Your task to perform on an android device: turn off location Image 0: 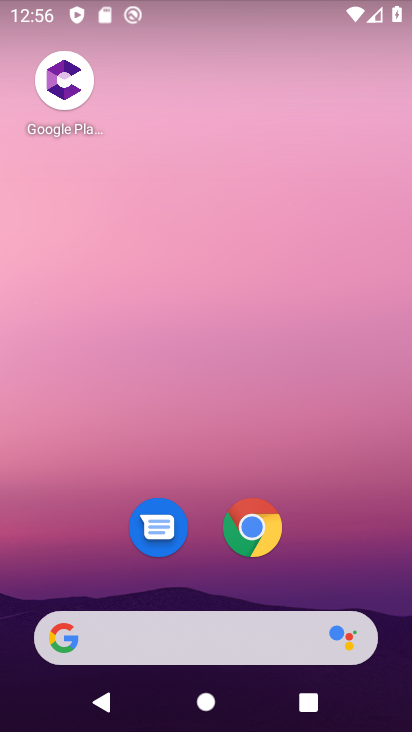
Step 0: drag from (380, 590) to (369, 245)
Your task to perform on an android device: turn off location Image 1: 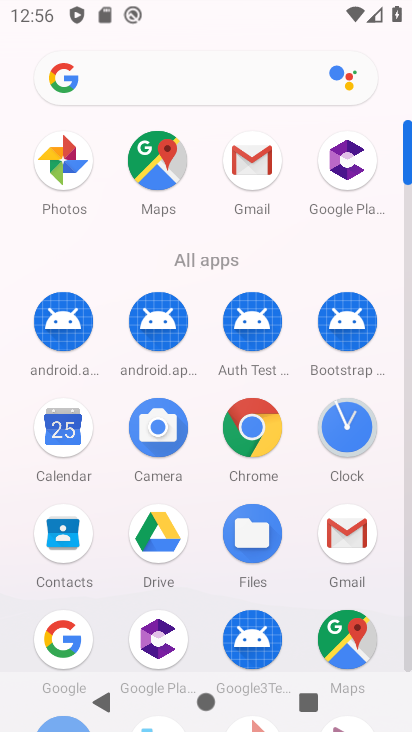
Step 1: drag from (295, 599) to (297, 278)
Your task to perform on an android device: turn off location Image 2: 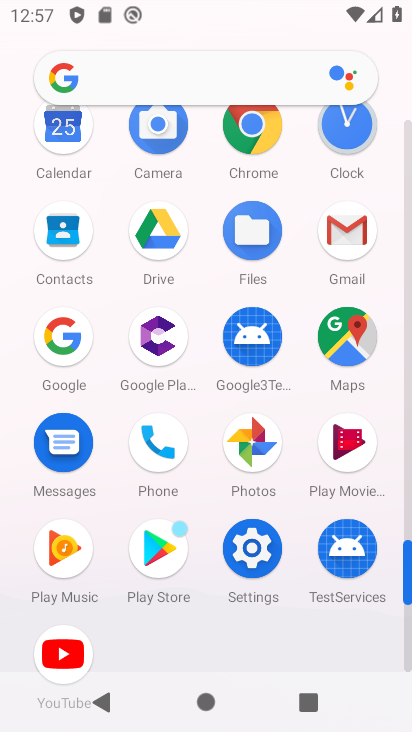
Step 2: click (262, 557)
Your task to perform on an android device: turn off location Image 3: 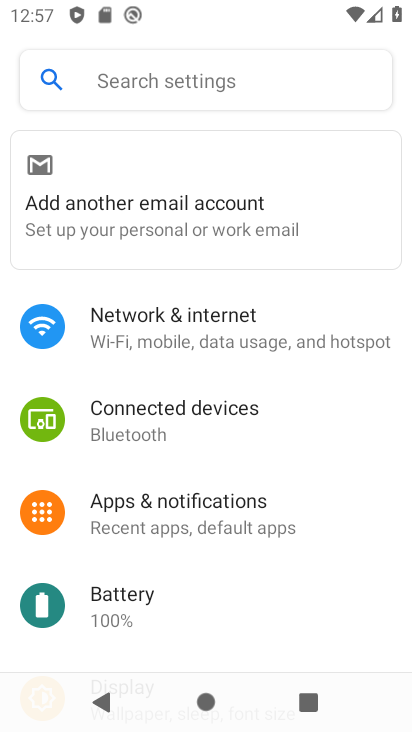
Step 3: drag from (334, 565) to (346, 459)
Your task to perform on an android device: turn off location Image 4: 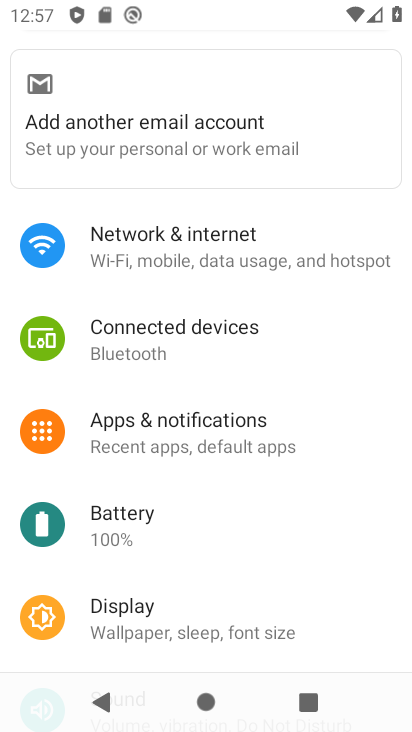
Step 4: drag from (362, 609) to (354, 500)
Your task to perform on an android device: turn off location Image 5: 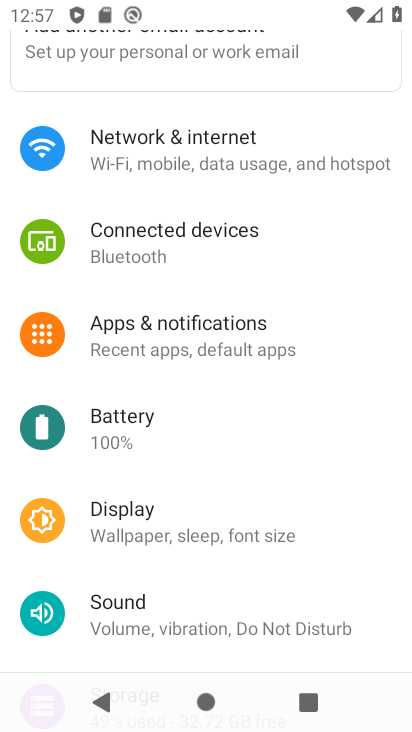
Step 5: drag from (370, 602) to (383, 496)
Your task to perform on an android device: turn off location Image 6: 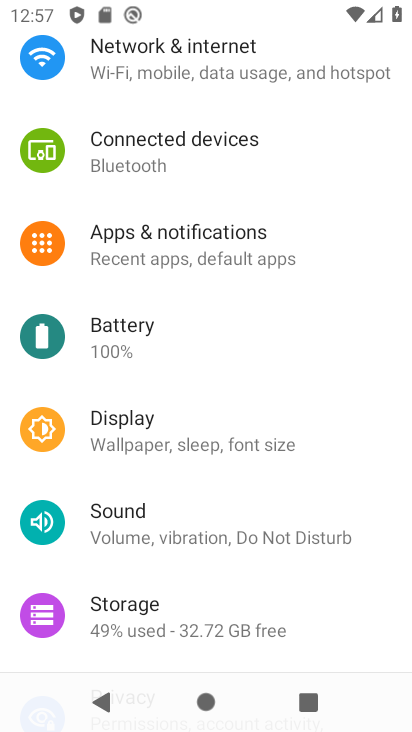
Step 6: drag from (361, 620) to (358, 519)
Your task to perform on an android device: turn off location Image 7: 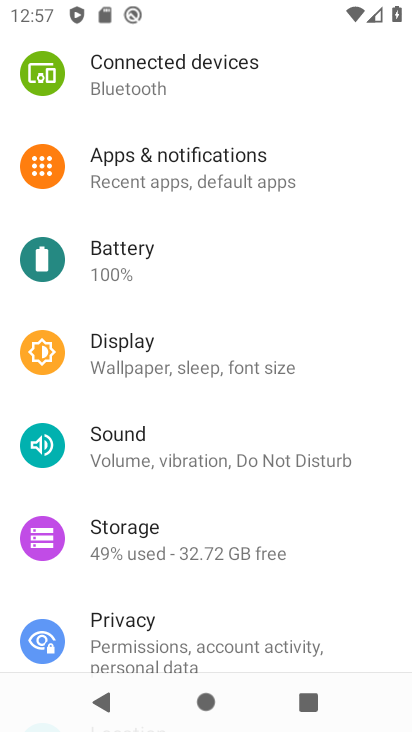
Step 7: drag from (347, 607) to (350, 510)
Your task to perform on an android device: turn off location Image 8: 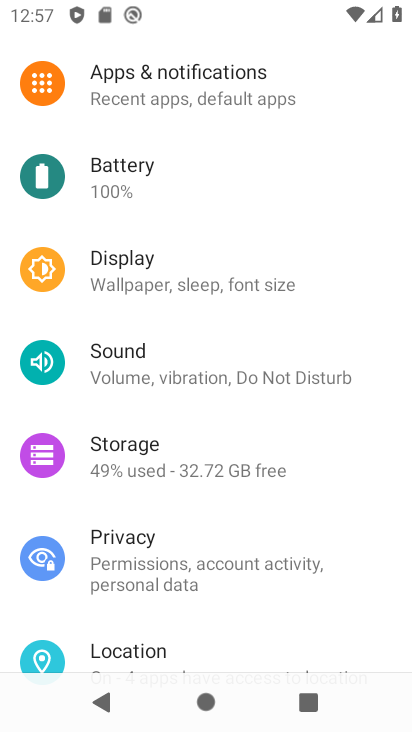
Step 8: drag from (367, 625) to (353, 530)
Your task to perform on an android device: turn off location Image 9: 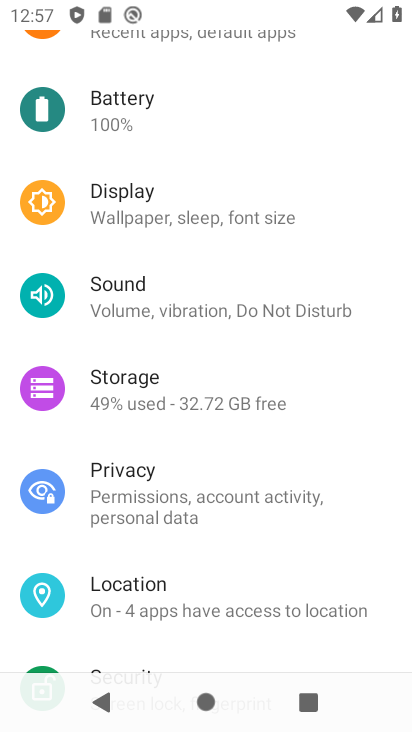
Step 9: drag from (360, 638) to (346, 517)
Your task to perform on an android device: turn off location Image 10: 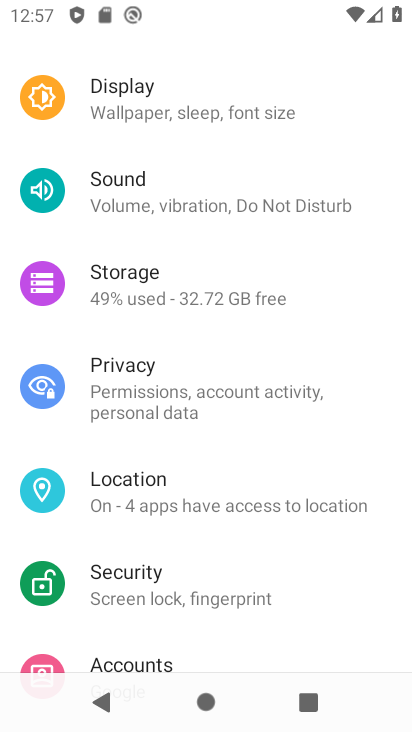
Step 10: click (291, 514)
Your task to perform on an android device: turn off location Image 11: 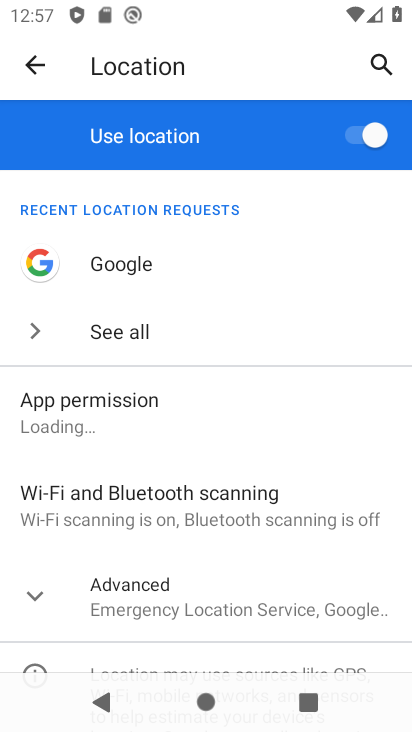
Step 11: click (380, 144)
Your task to perform on an android device: turn off location Image 12: 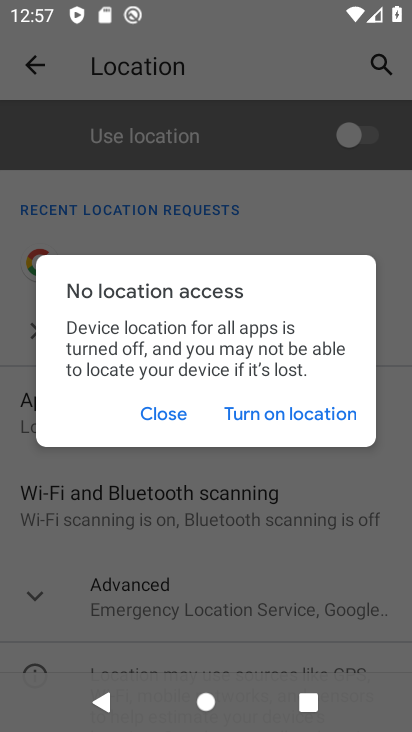
Step 12: task complete